Your task to perform on an android device: Go to CNN.com Image 0: 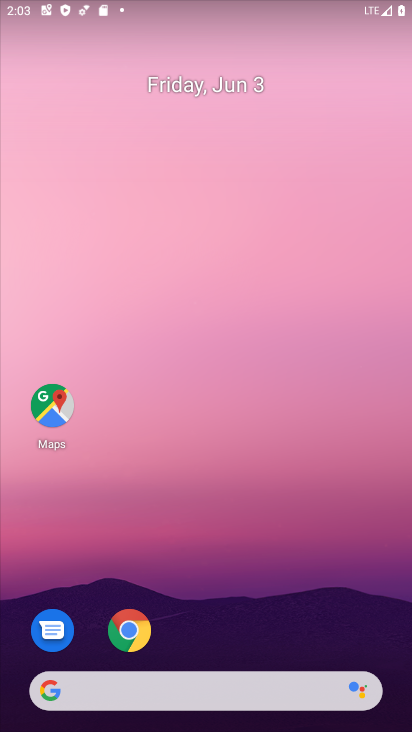
Step 0: click (128, 634)
Your task to perform on an android device: Go to CNN.com Image 1: 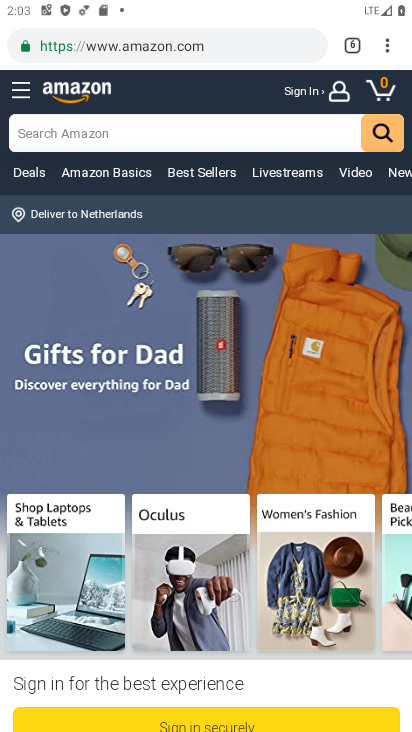
Step 1: click (388, 48)
Your task to perform on an android device: Go to CNN.com Image 2: 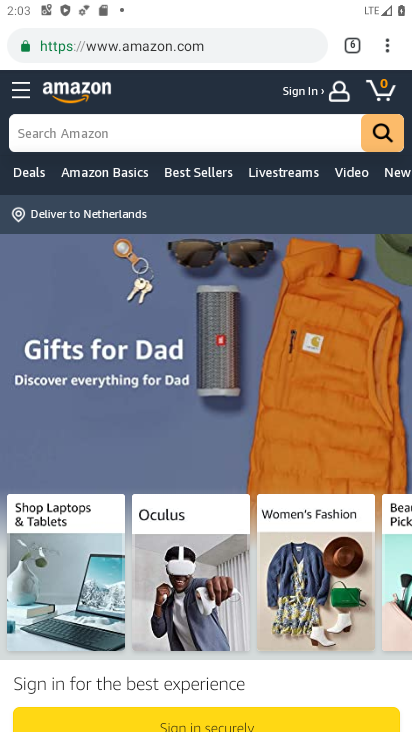
Step 2: click (389, 50)
Your task to perform on an android device: Go to CNN.com Image 3: 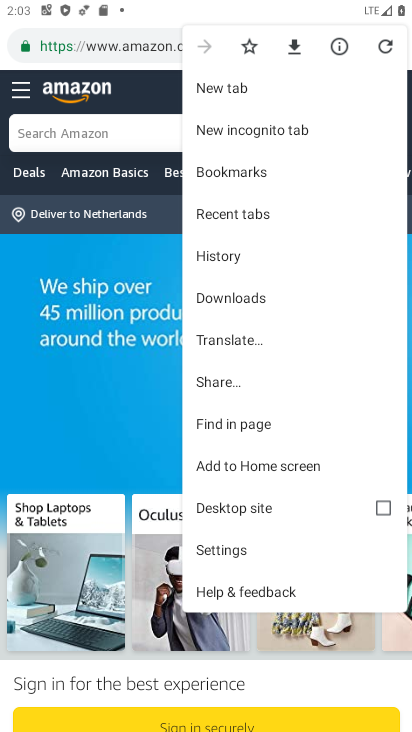
Step 3: click (217, 86)
Your task to perform on an android device: Go to CNN.com Image 4: 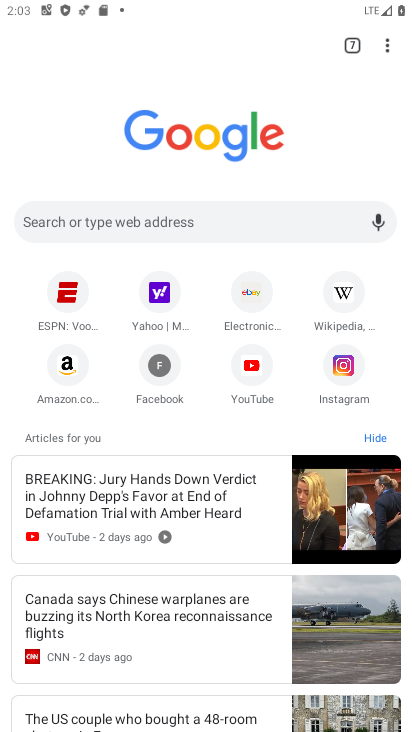
Step 4: click (248, 214)
Your task to perform on an android device: Go to CNN.com Image 5: 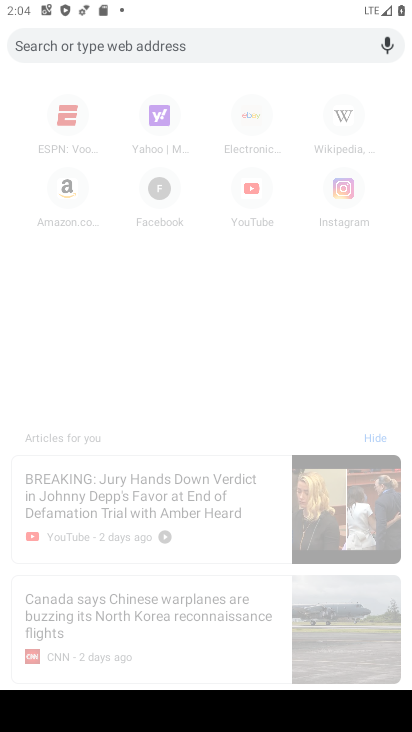
Step 5: type "CNN.com"
Your task to perform on an android device: Go to CNN.com Image 6: 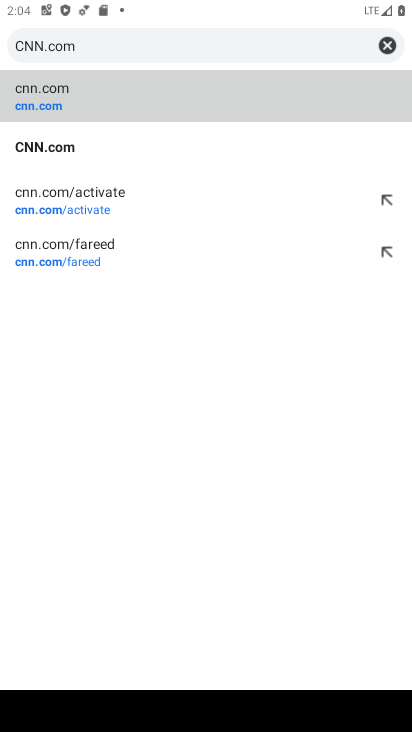
Step 6: click (54, 96)
Your task to perform on an android device: Go to CNN.com Image 7: 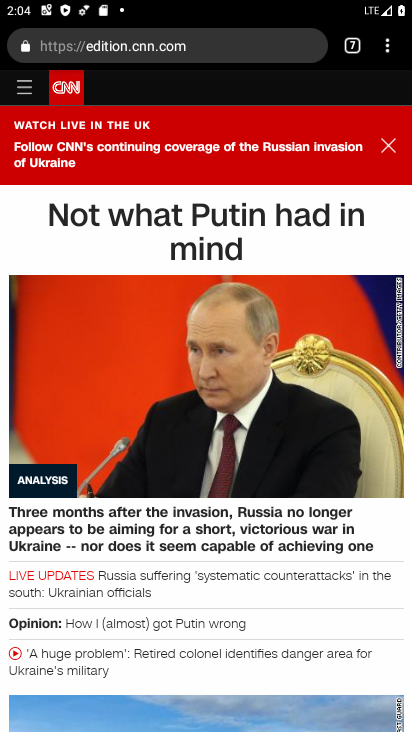
Step 7: task complete